Your task to perform on an android device: uninstall "Facebook Lite" Image 0: 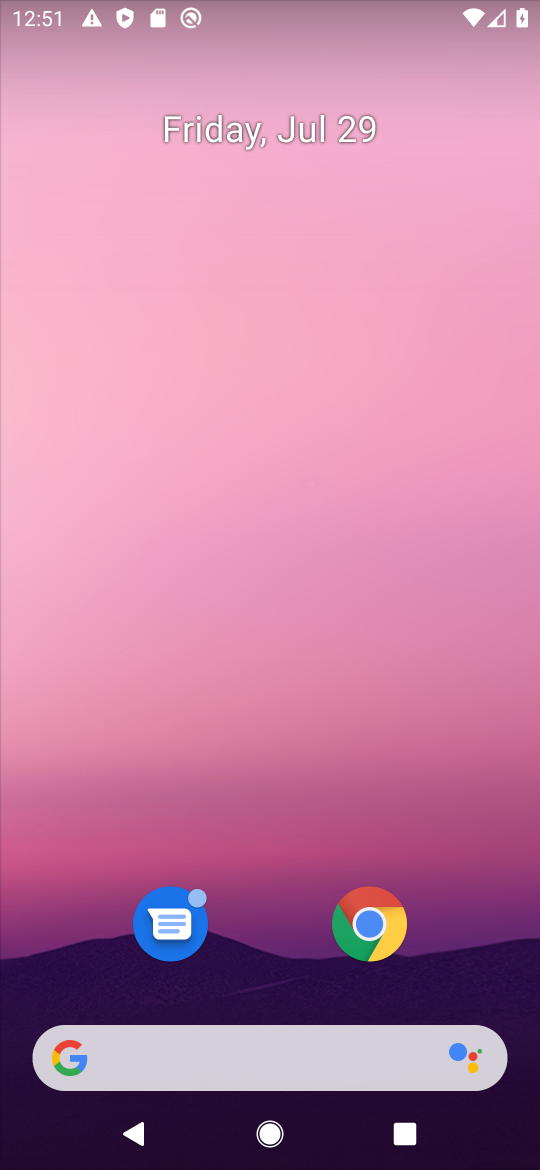
Step 0: drag from (282, 1066) to (299, 12)
Your task to perform on an android device: uninstall "Facebook Lite" Image 1: 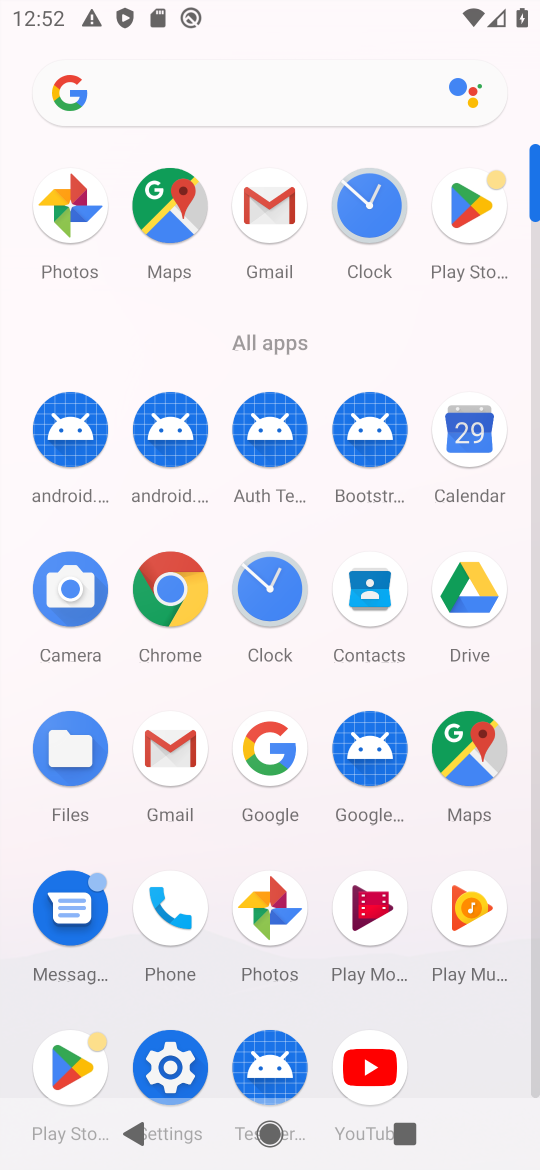
Step 1: click (480, 223)
Your task to perform on an android device: uninstall "Facebook Lite" Image 2: 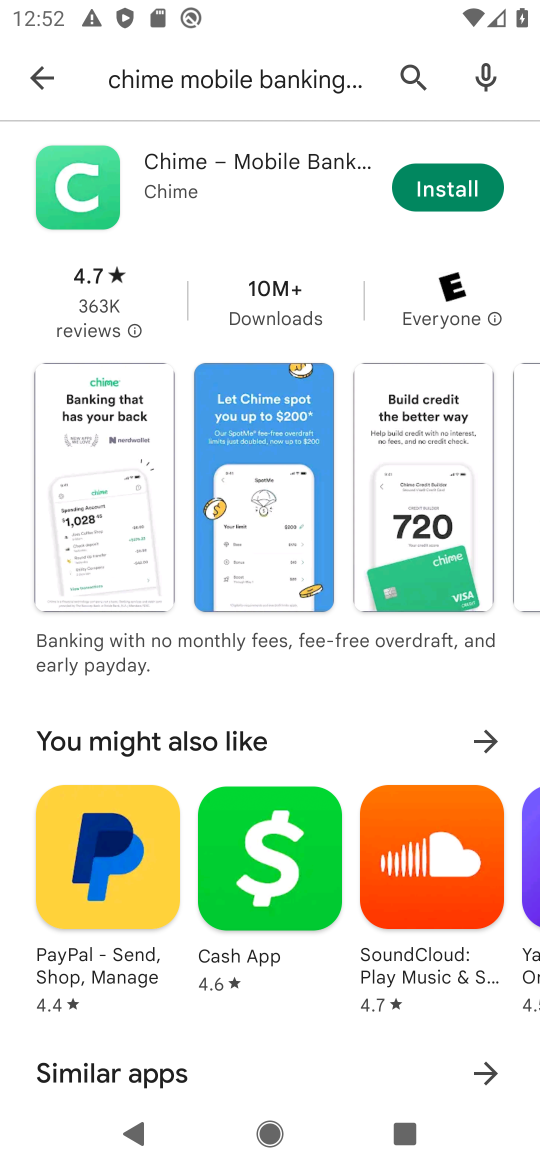
Step 2: click (404, 87)
Your task to perform on an android device: uninstall "Facebook Lite" Image 3: 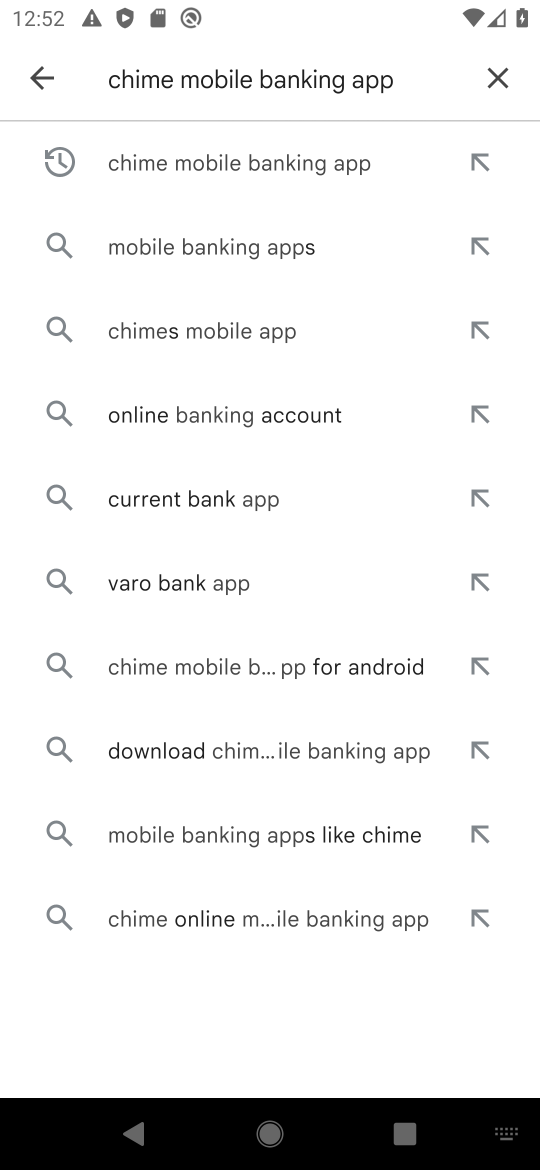
Step 3: click (487, 82)
Your task to perform on an android device: uninstall "Facebook Lite" Image 4: 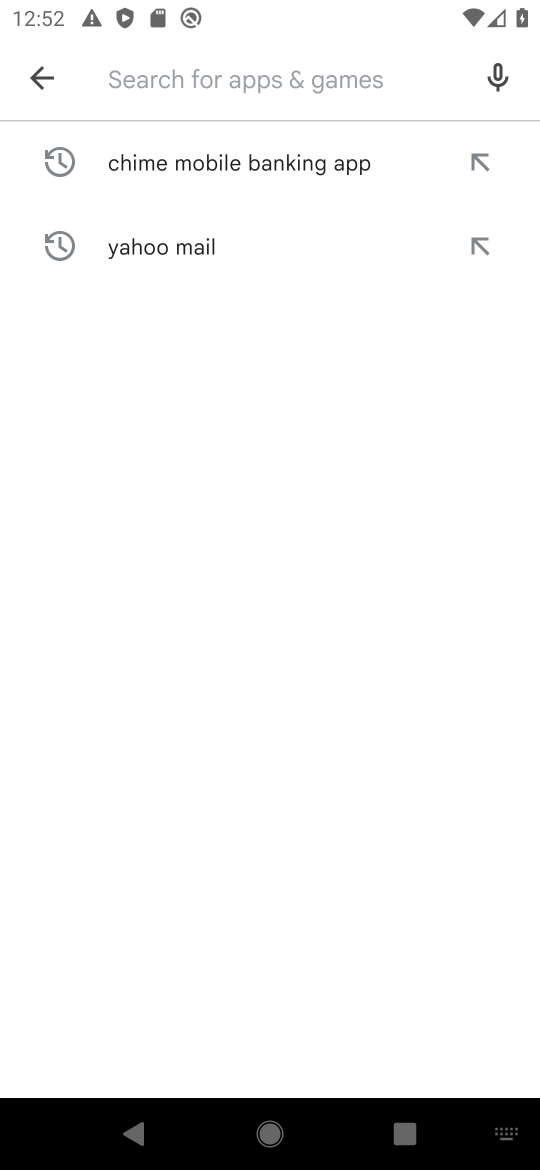
Step 4: type "Facebook Lite"
Your task to perform on an android device: uninstall "Facebook Lite" Image 5: 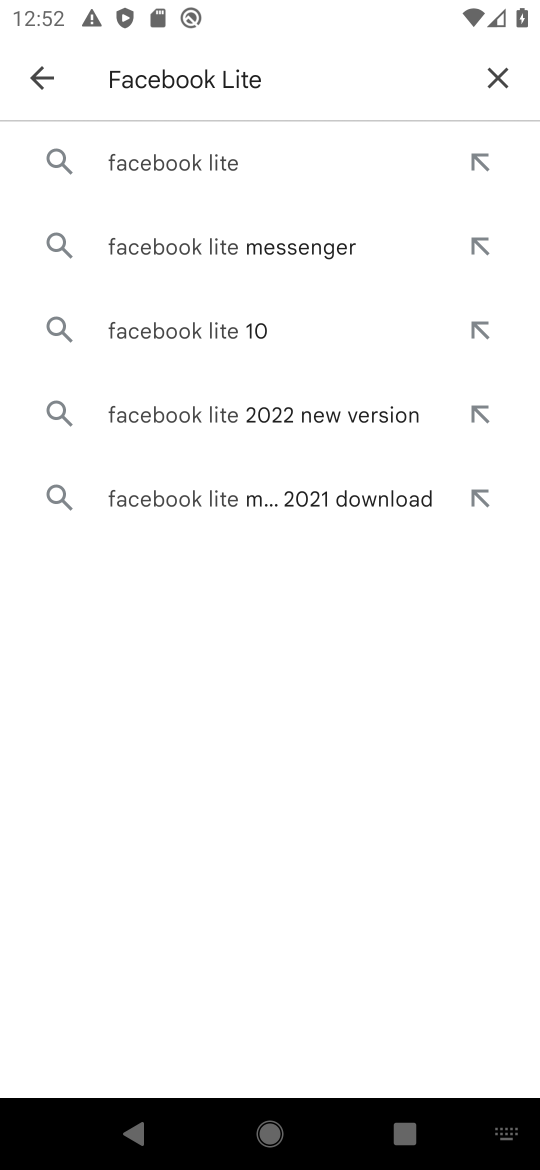
Step 5: click (208, 157)
Your task to perform on an android device: uninstall "Facebook Lite" Image 6: 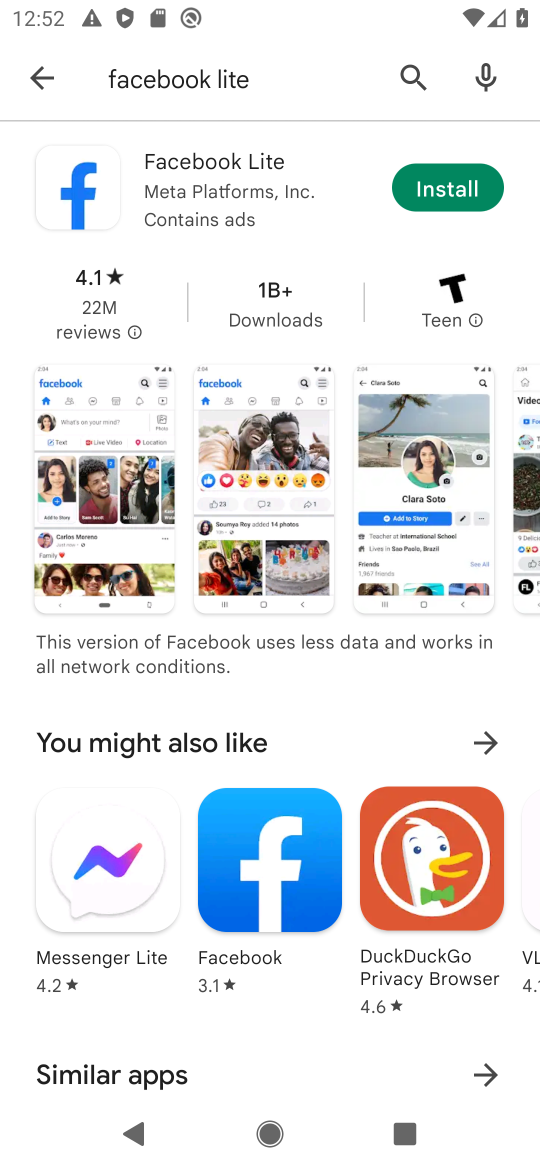
Step 6: task complete